Your task to perform on an android device: change keyboard looks Image 0: 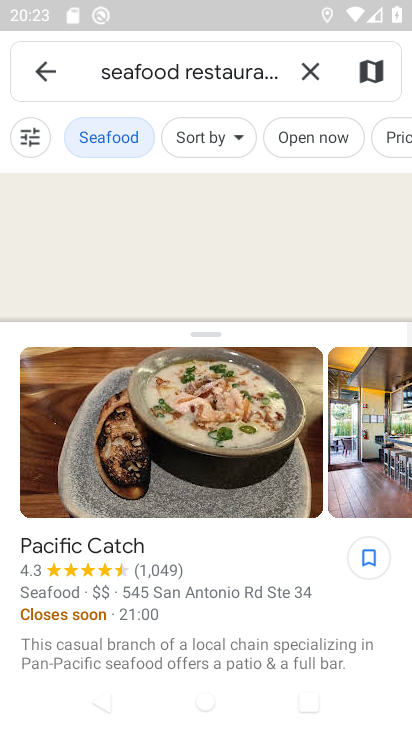
Step 0: press home button
Your task to perform on an android device: change keyboard looks Image 1: 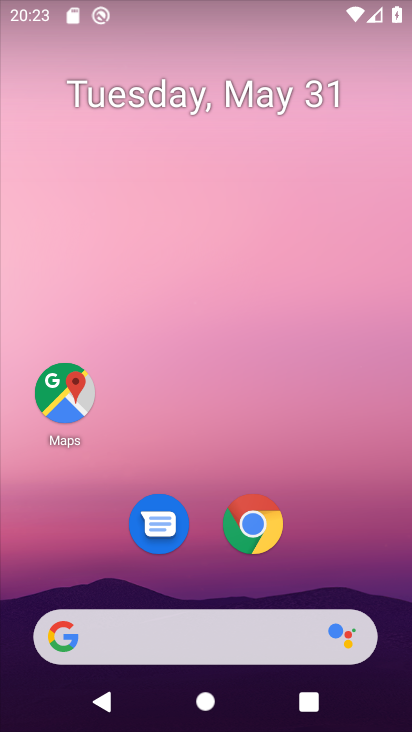
Step 1: drag from (333, 559) to (360, 20)
Your task to perform on an android device: change keyboard looks Image 2: 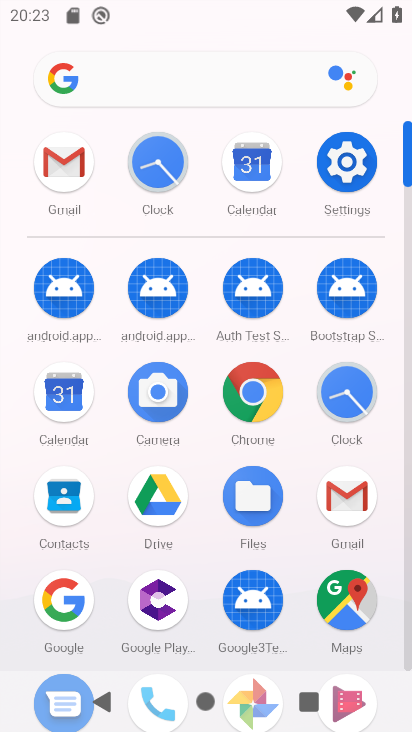
Step 2: click (342, 153)
Your task to perform on an android device: change keyboard looks Image 3: 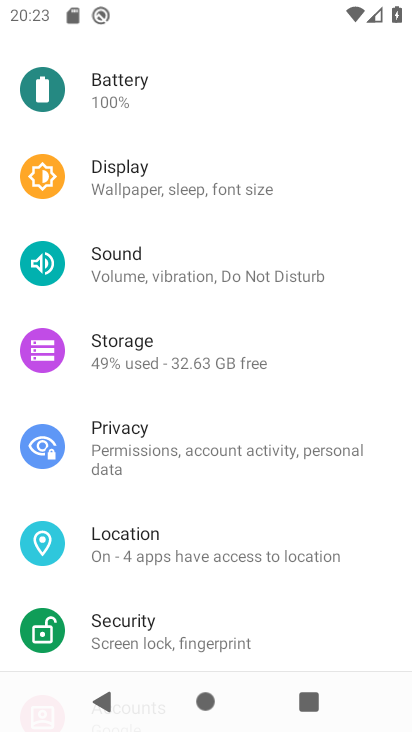
Step 3: drag from (259, 475) to (298, 3)
Your task to perform on an android device: change keyboard looks Image 4: 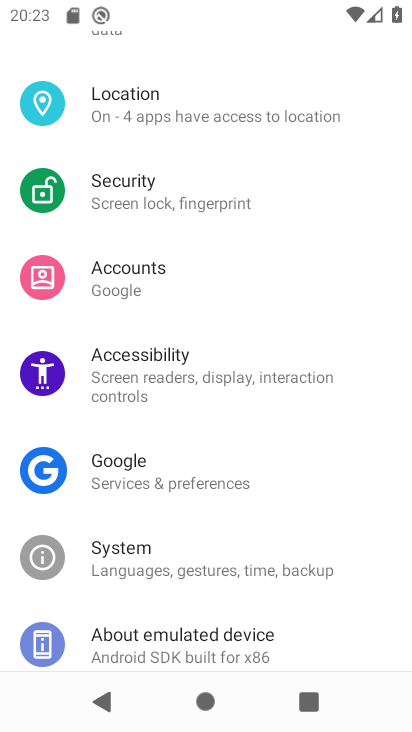
Step 4: click (192, 553)
Your task to perform on an android device: change keyboard looks Image 5: 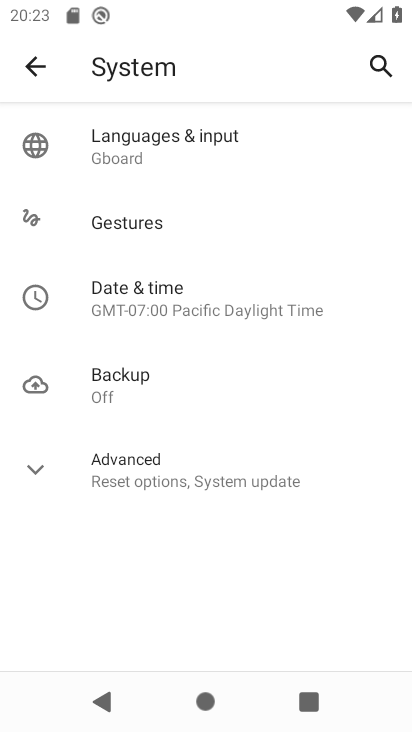
Step 5: click (179, 152)
Your task to perform on an android device: change keyboard looks Image 6: 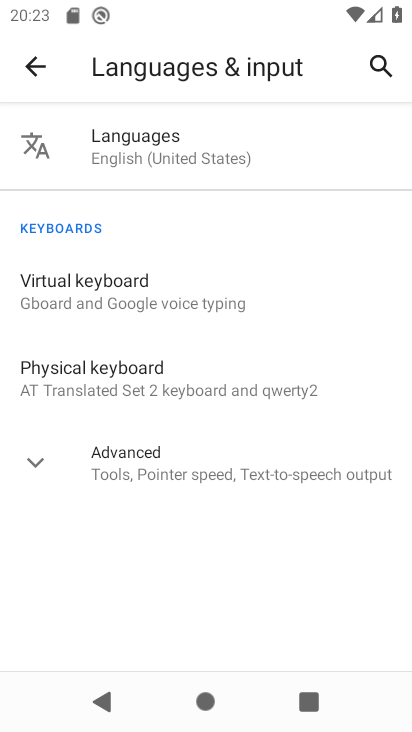
Step 6: click (122, 291)
Your task to perform on an android device: change keyboard looks Image 7: 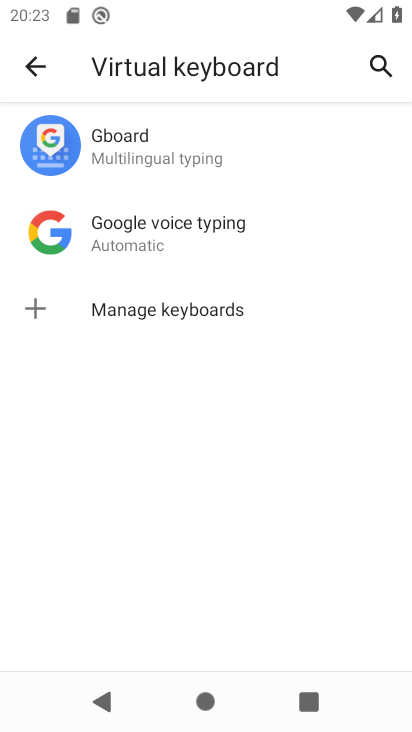
Step 7: click (146, 145)
Your task to perform on an android device: change keyboard looks Image 8: 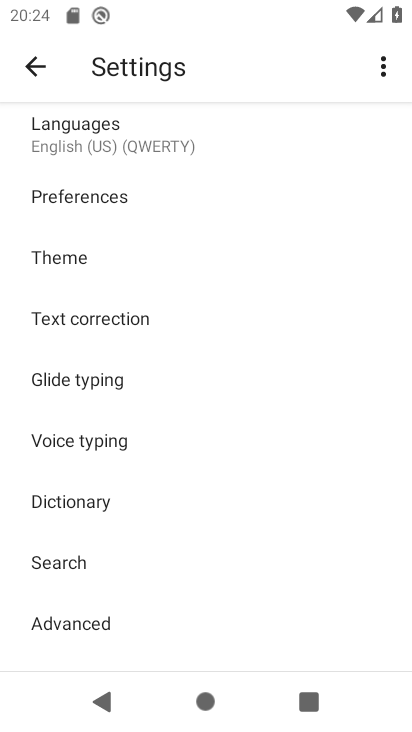
Step 8: click (97, 263)
Your task to perform on an android device: change keyboard looks Image 9: 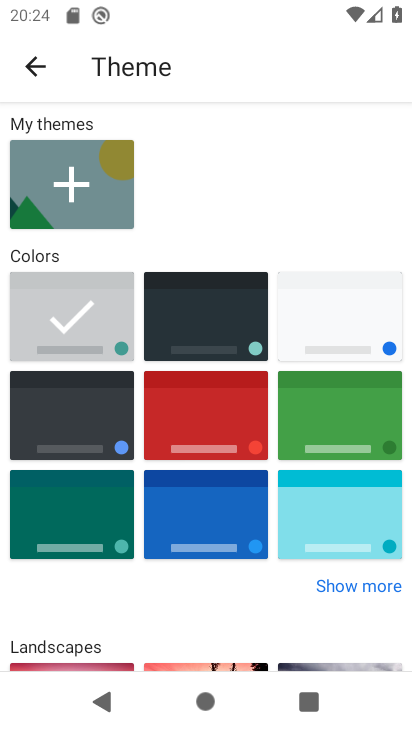
Step 9: click (184, 399)
Your task to perform on an android device: change keyboard looks Image 10: 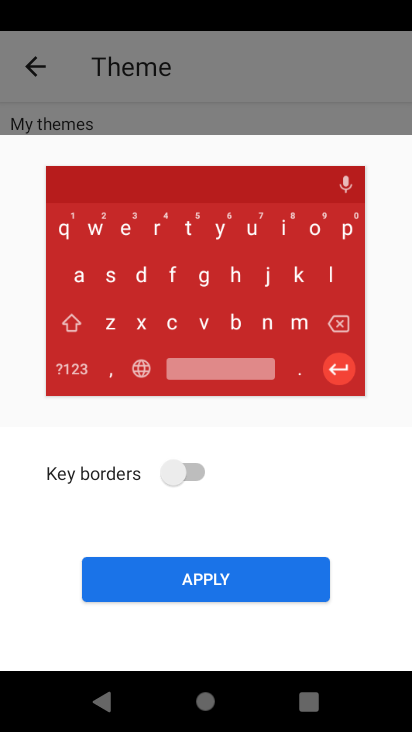
Step 10: click (193, 461)
Your task to perform on an android device: change keyboard looks Image 11: 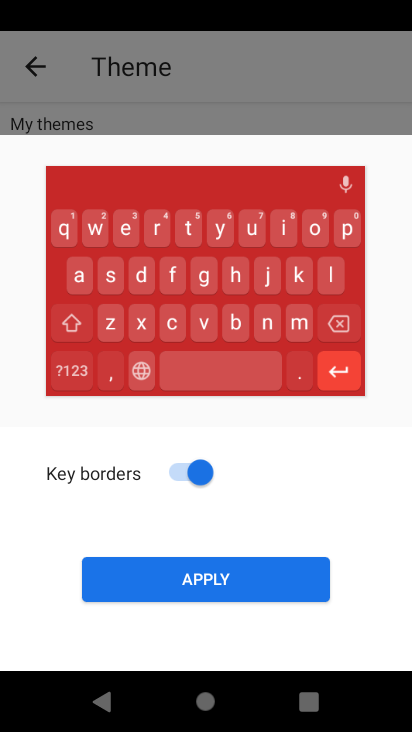
Step 11: click (215, 575)
Your task to perform on an android device: change keyboard looks Image 12: 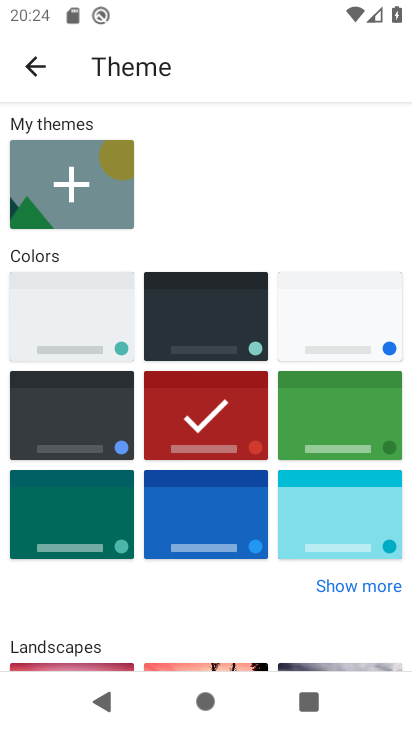
Step 12: task complete